Your task to perform on an android device: delete location history Image 0: 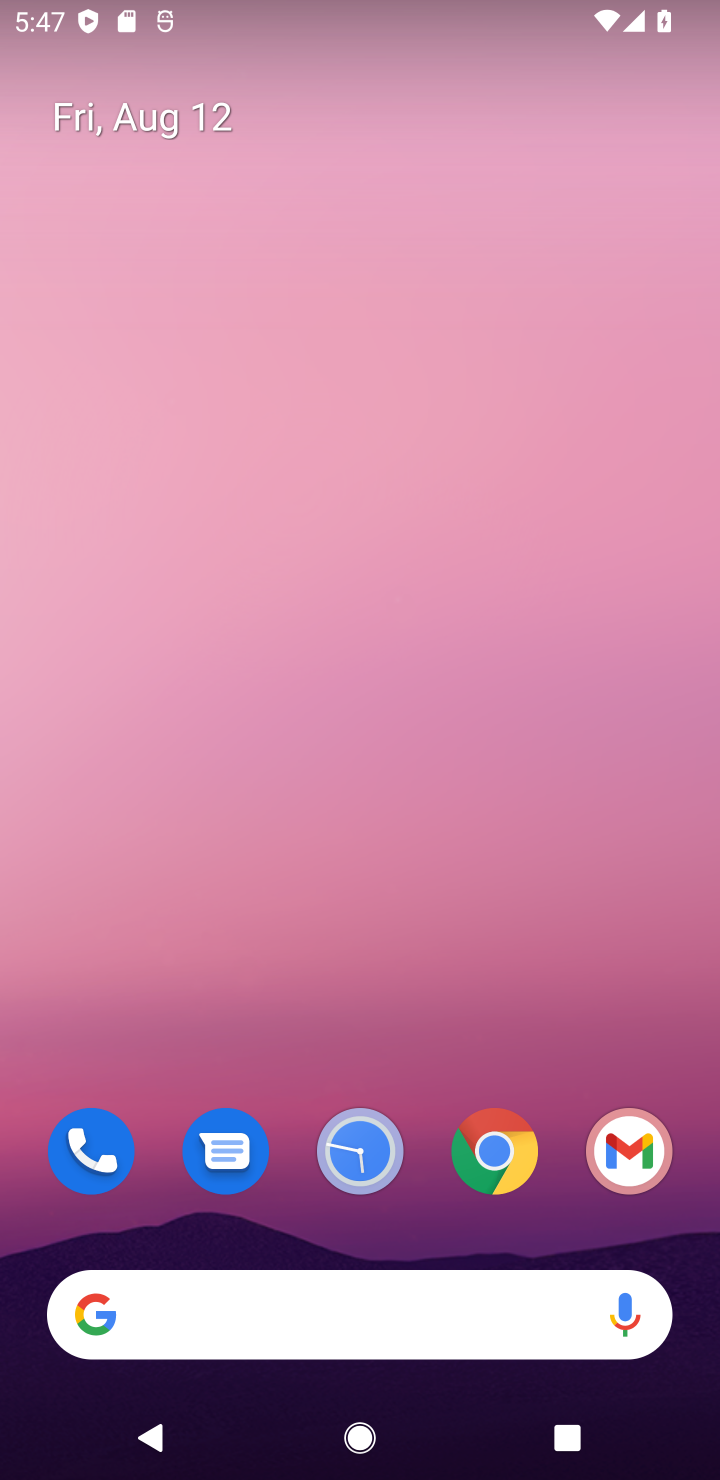
Step 0: drag from (505, 1062) to (568, 137)
Your task to perform on an android device: delete location history Image 1: 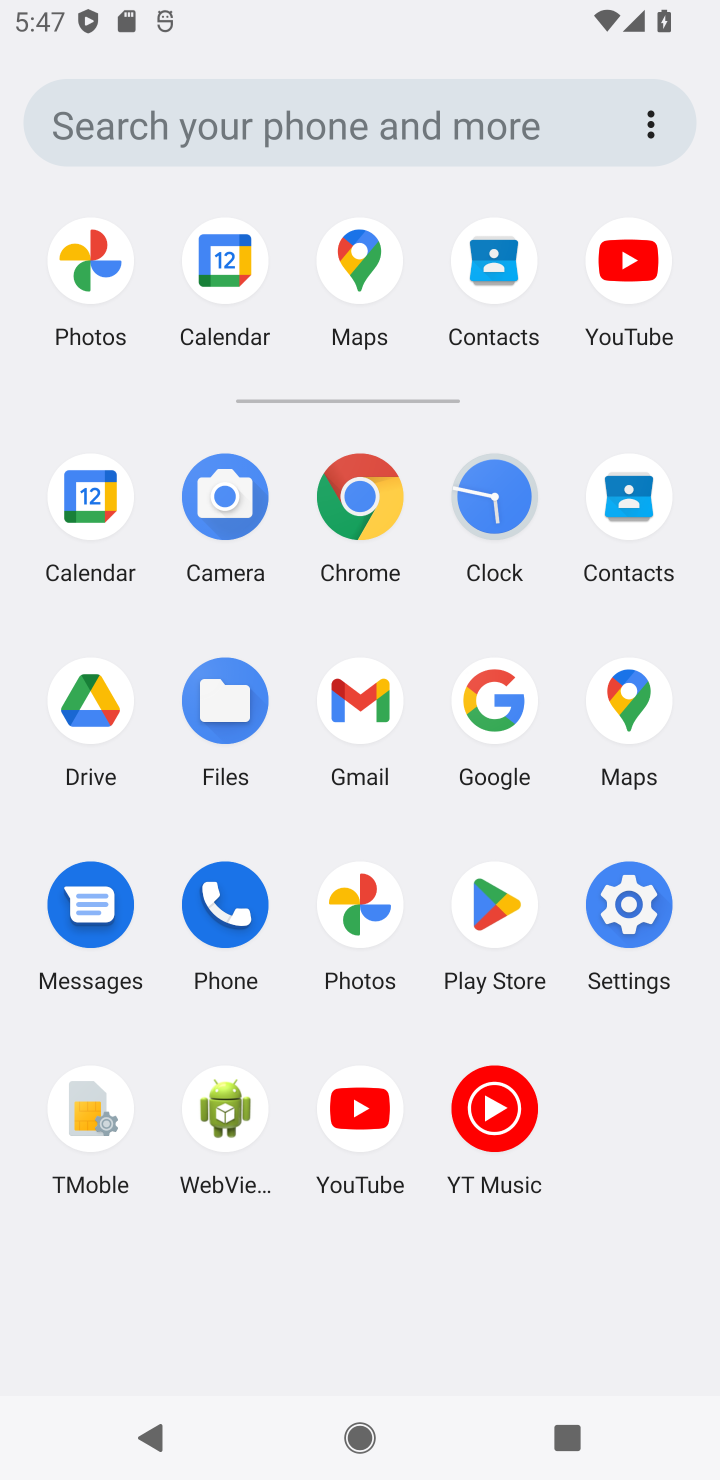
Step 1: click (635, 674)
Your task to perform on an android device: delete location history Image 2: 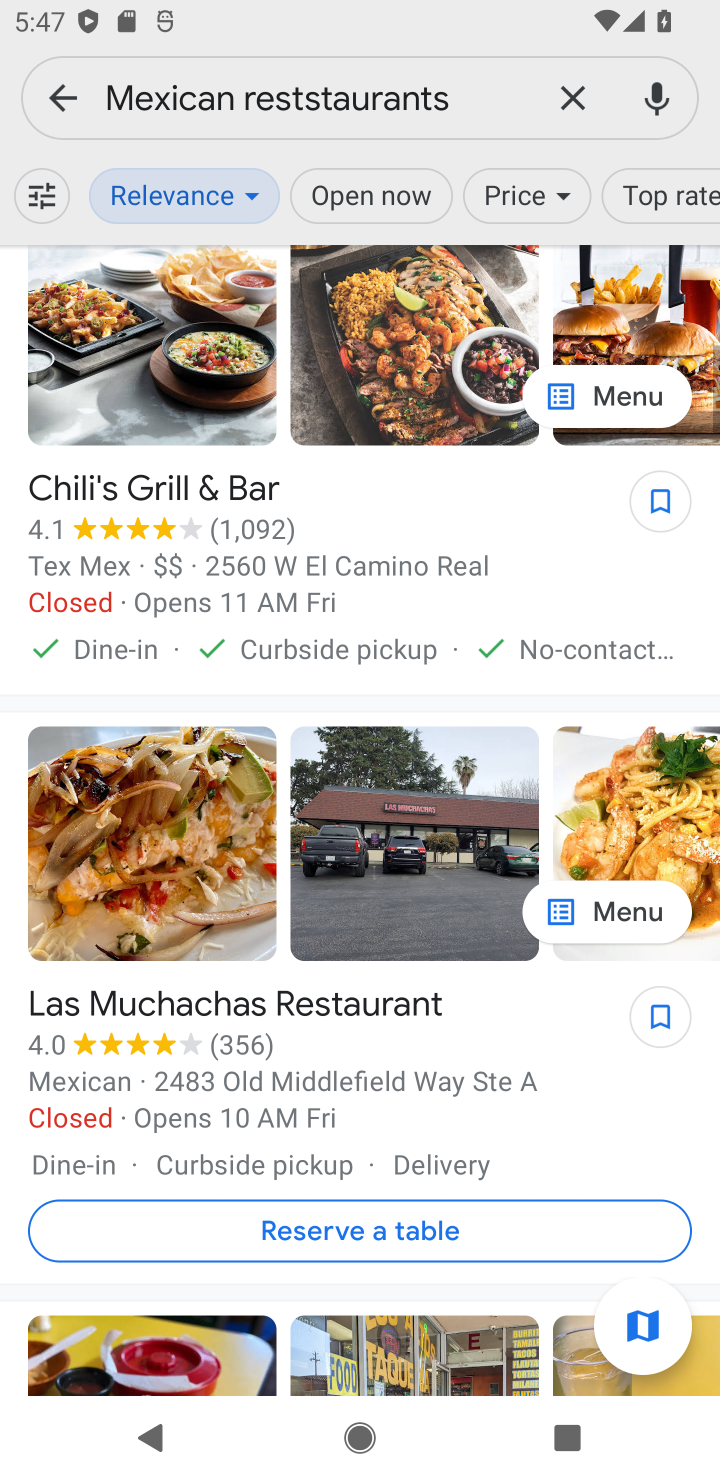
Step 2: click (57, 88)
Your task to perform on an android device: delete location history Image 3: 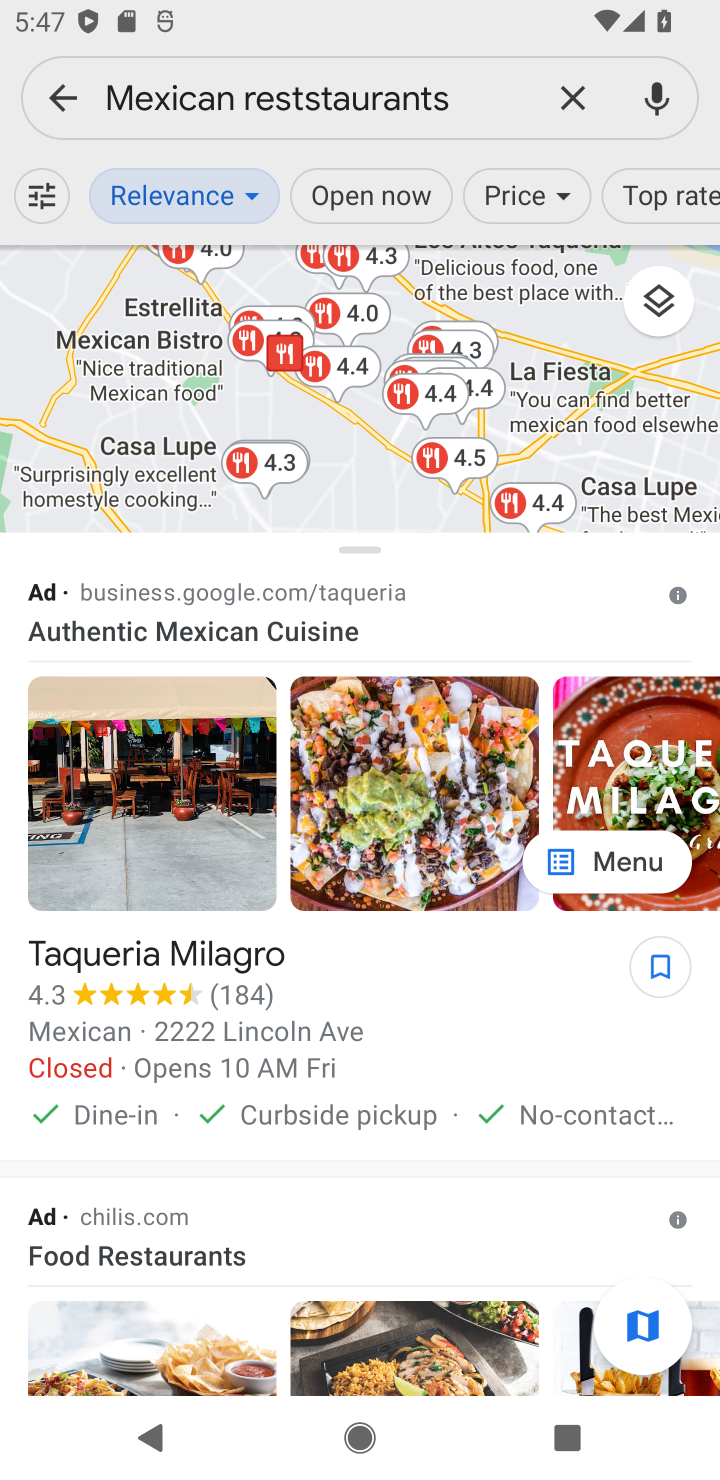
Step 3: click (70, 100)
Your task to perform on an android device: delete location history Image 4: 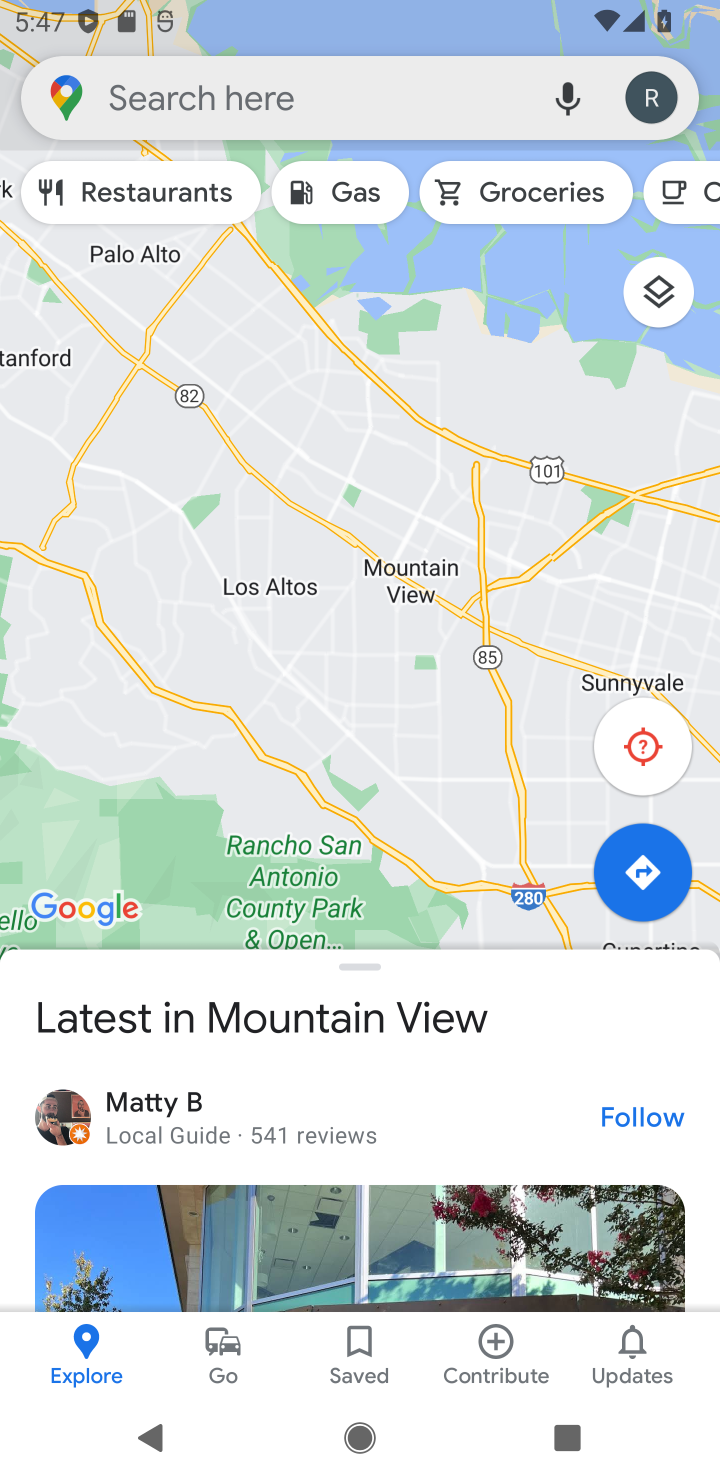
Step 4: click (651, 85)
Your task to perform on an android device: delete location history Image 5: 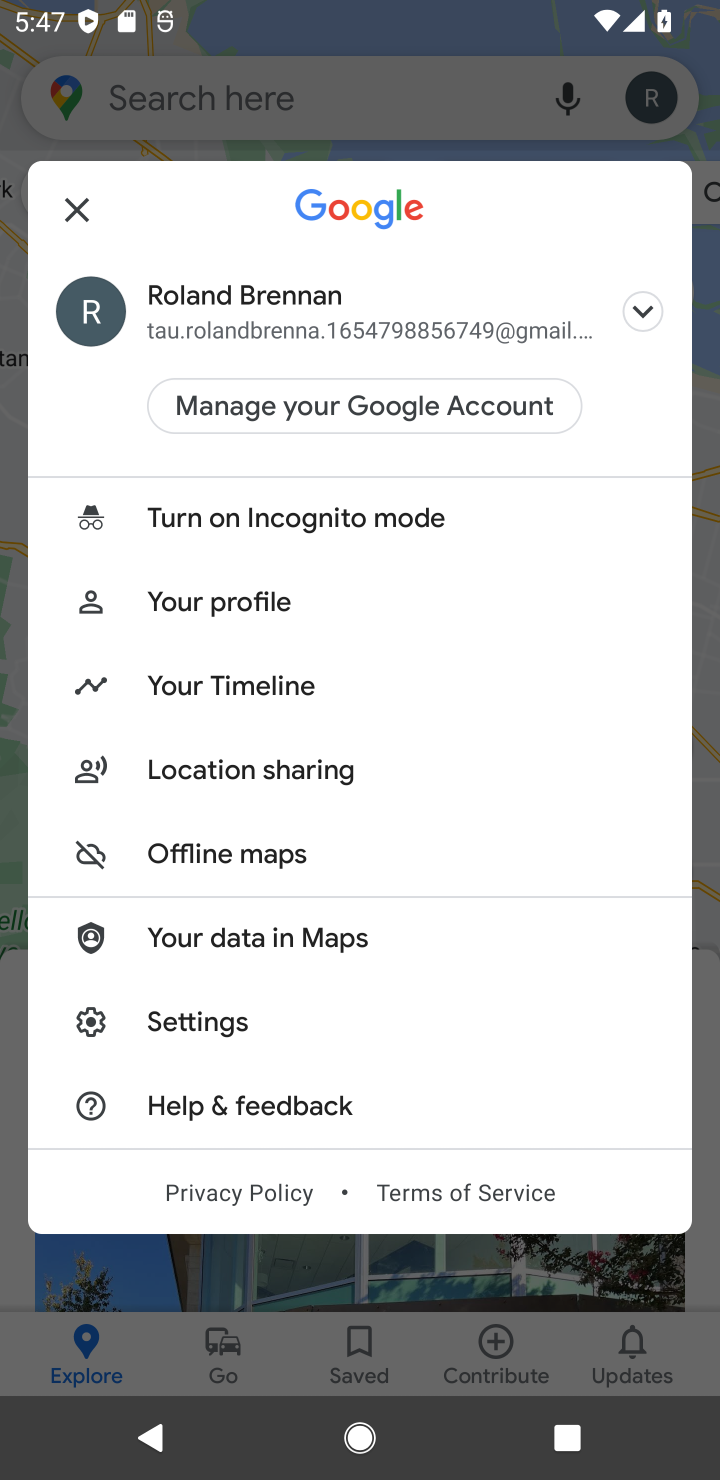
Step 5: click (174, 1035)
Your task to perform on an android device: delete location history Image 6: 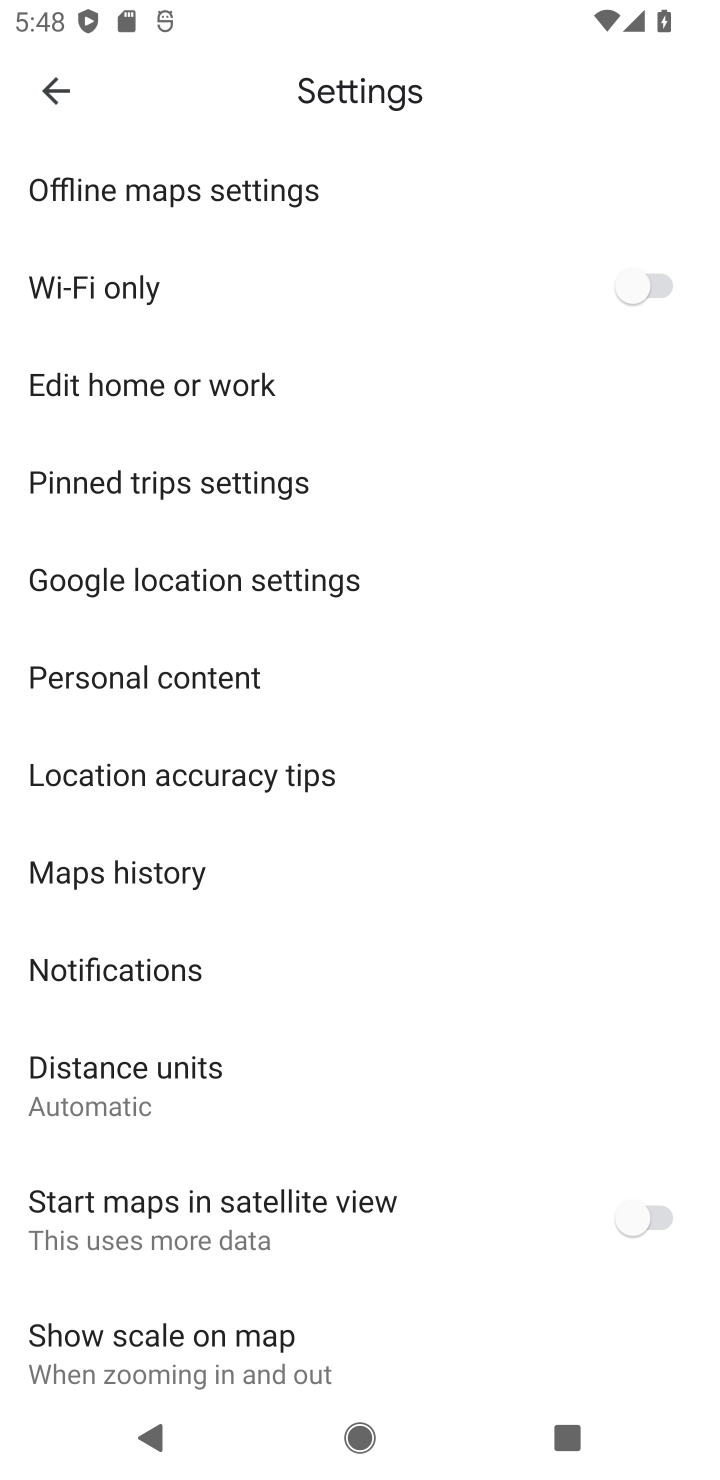
Step 6: click (109, 875)
Your task to perform on an android device: delete location history Image 7: 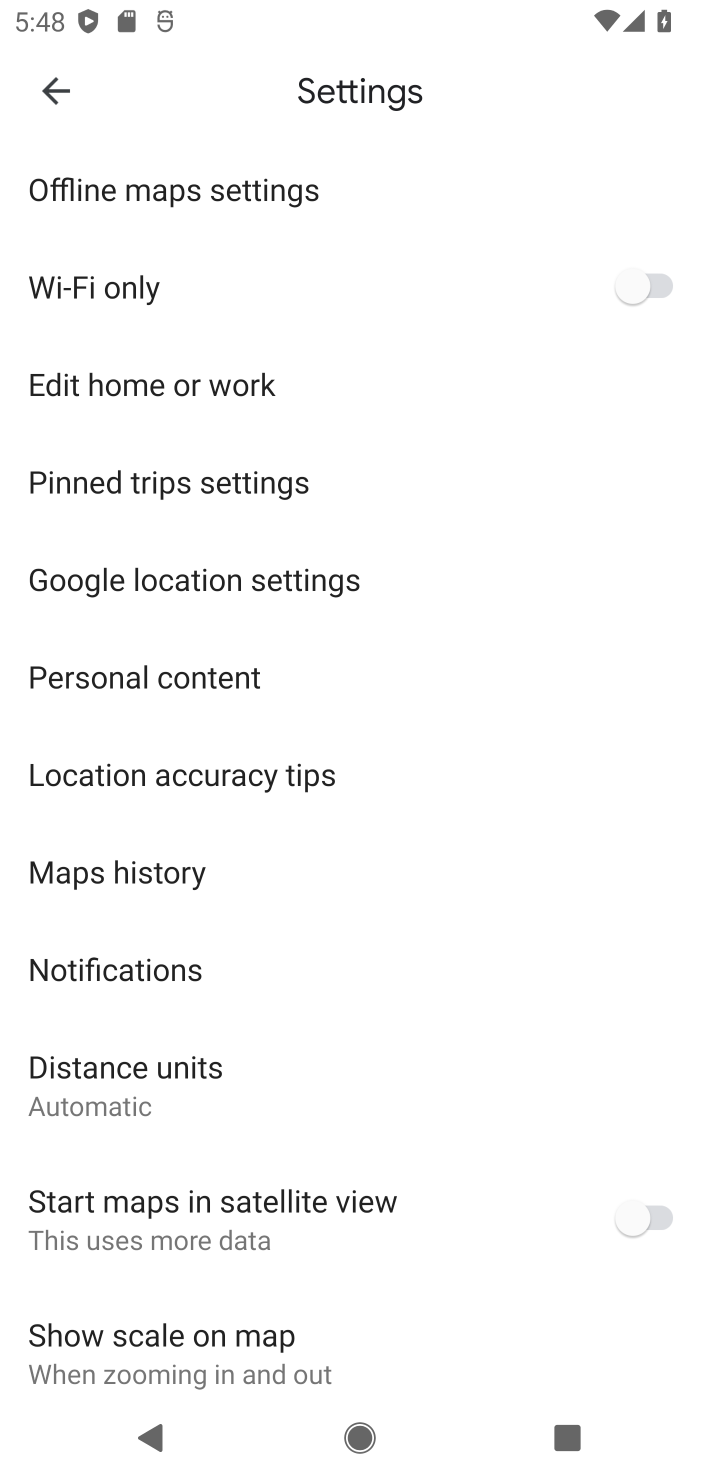
Step 7: click (113, 870)
Your task to perform on an android device: delete location history Image 8: 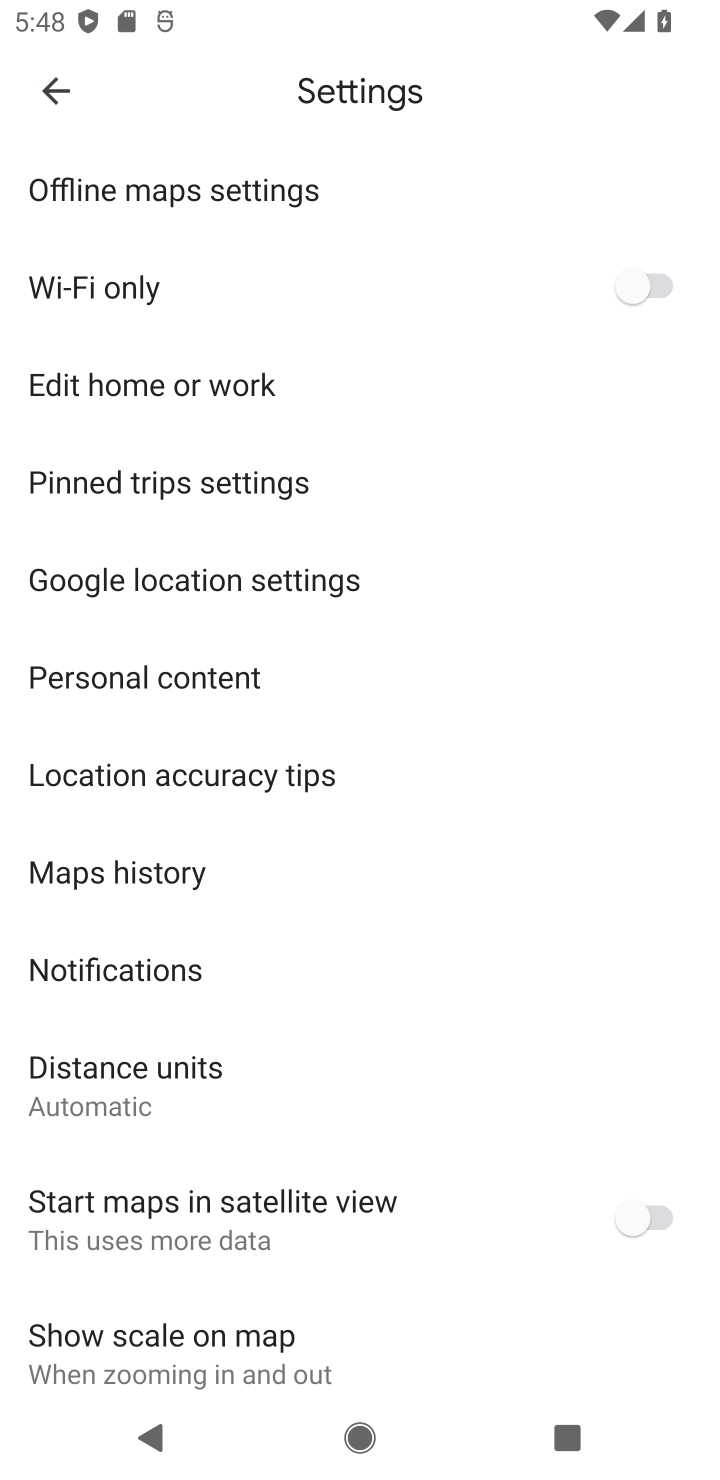
Step 8: task complete